Your task to perform on an android device: show emergency info Image 0: 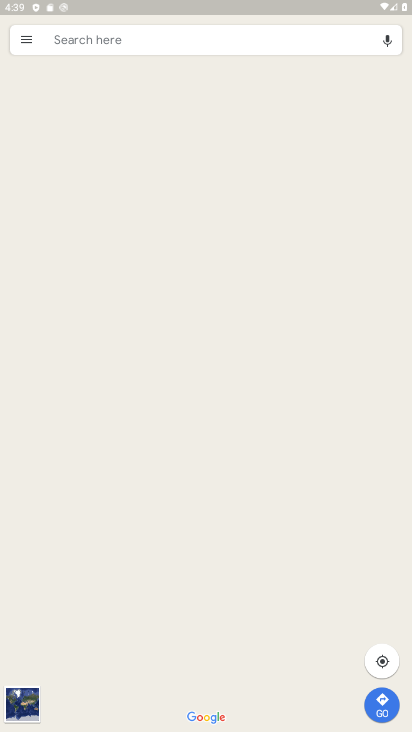
Step 0: press home button
Your task to perform on an android device: show emergency info Image 1: 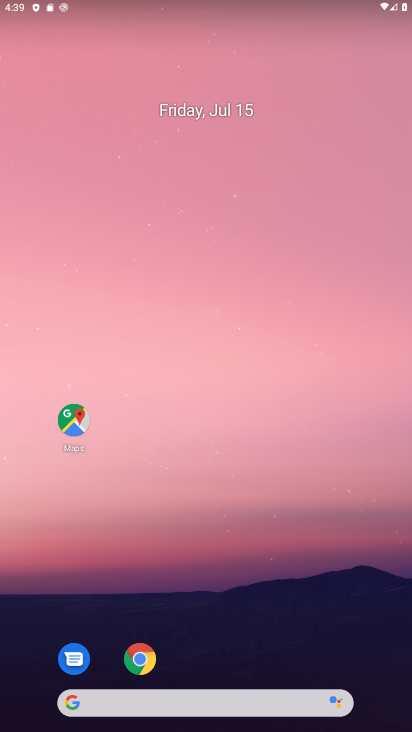
Step 1: drag from (385, 629) to (284, 98)
Your task to perform on an android device: show emergency info Image 2: 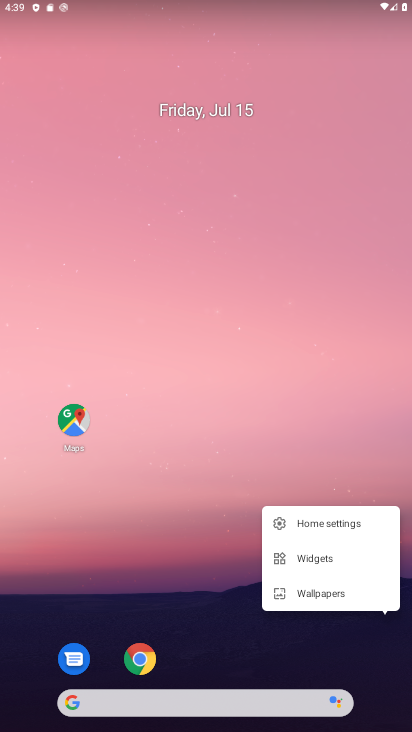
Step 2: drag from (211, 660) to (210, 123)
Your task to perform on an android device: show emergency info Image 3: 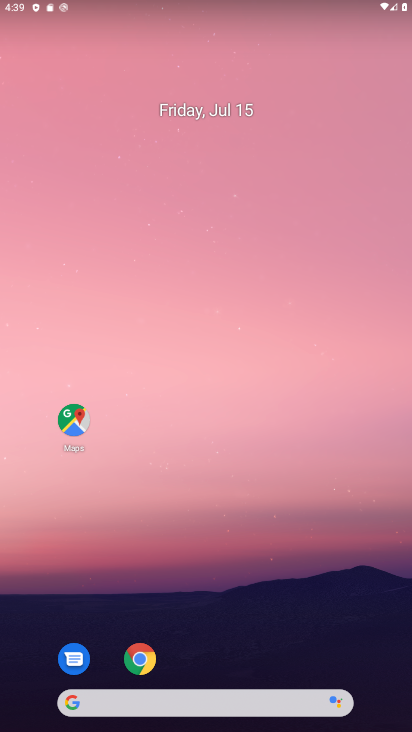
Step 3: drag from (396, 689) to (324, 41)
Your task to perform on an android device: show emergency info Image 4: 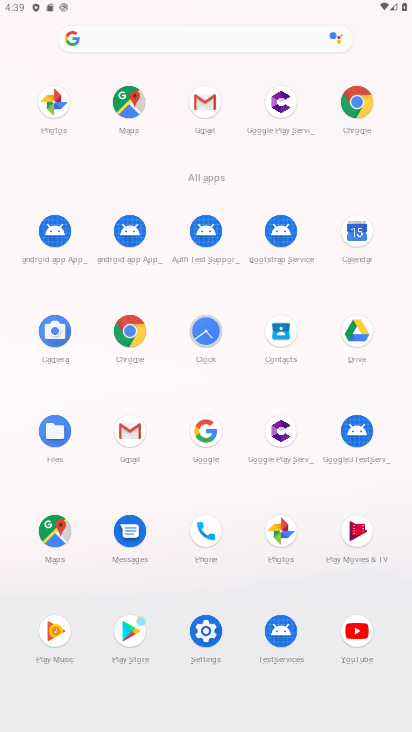
Step 4: click (216, 639)
Your task to perform on an android device: show emergency info Image 5: 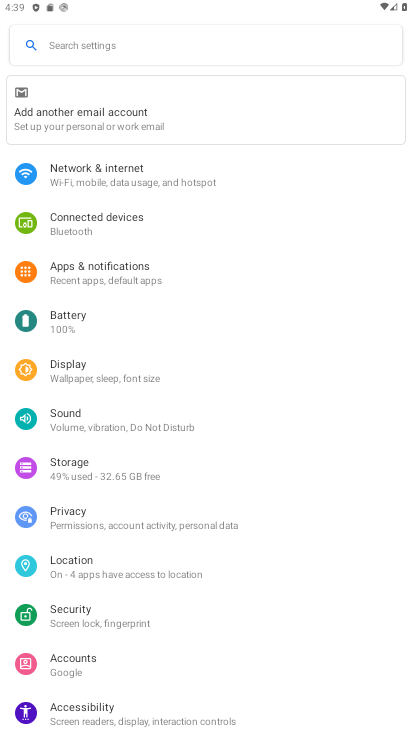
Step 5: drag from (185, 694) to (167, 424)
Your task to perform on an android device: show emergency info Image 6: 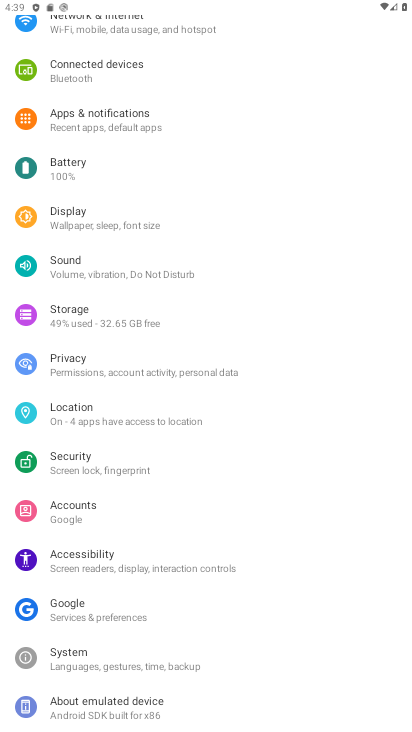
Step 6: click (183, 705)
Your task to perform on an android device: show emergency info Image 7: 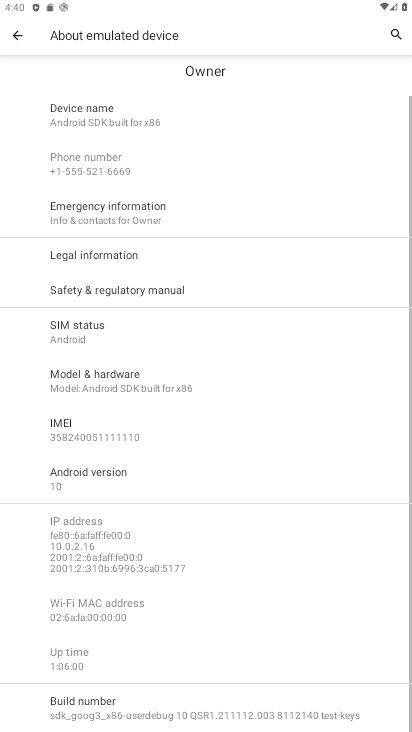
Step 7: click (210, 222)
Your task to perform on an android device: show emergency info Image 8: 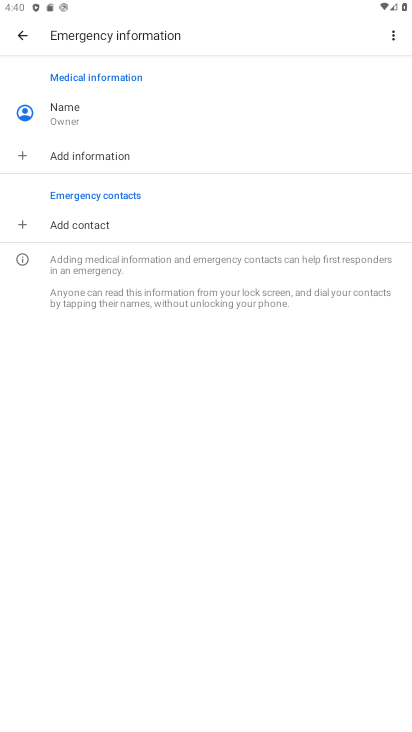
Step 8: task complete